Your task to perform on an android device: Go to ESPN.com Image 0: 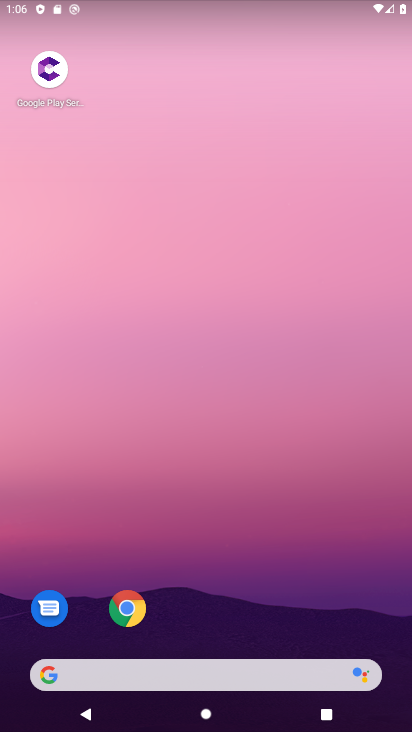
Step 0: drag from (200, 626) to (108, 96)
Your task to perform on an android device: Go to ESPN.com Image 1: 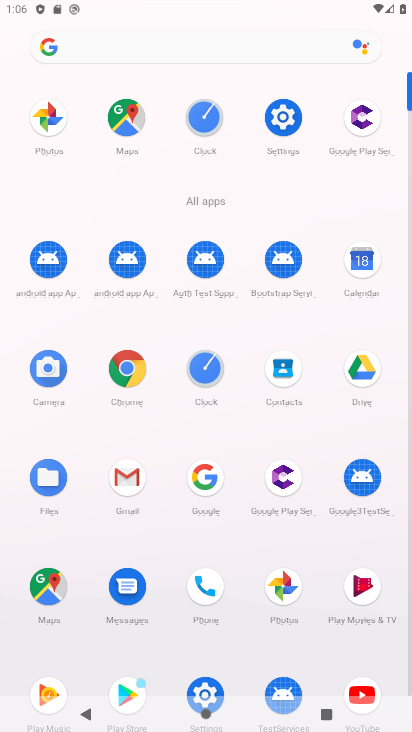
Step 1: click (115, 358)
Your task to perform on an android device: Go to ESPN.com Image 2: 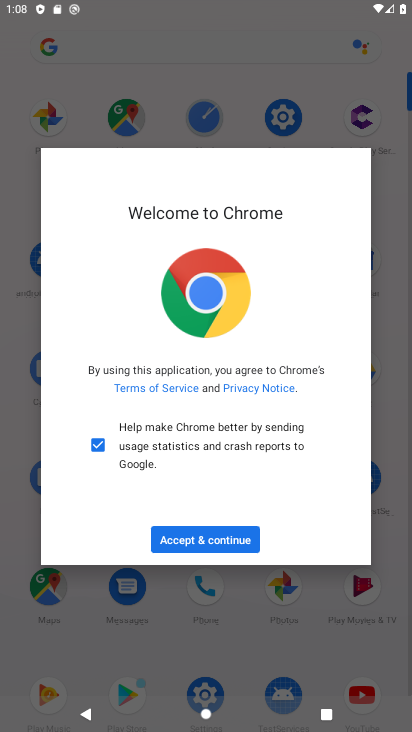
Step 2: click (178, 548)
Your task to perform on an android device: Go to ESPN.com Image 3: 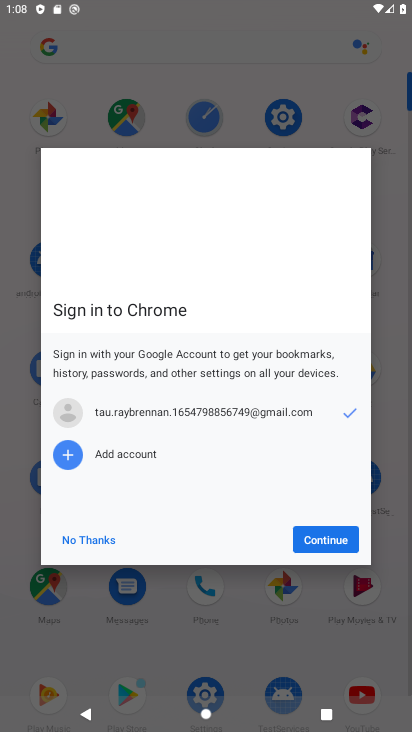
Step 3: click (87, 539)
Your task to perform on an android device: Go to ESPN.com Image 4: 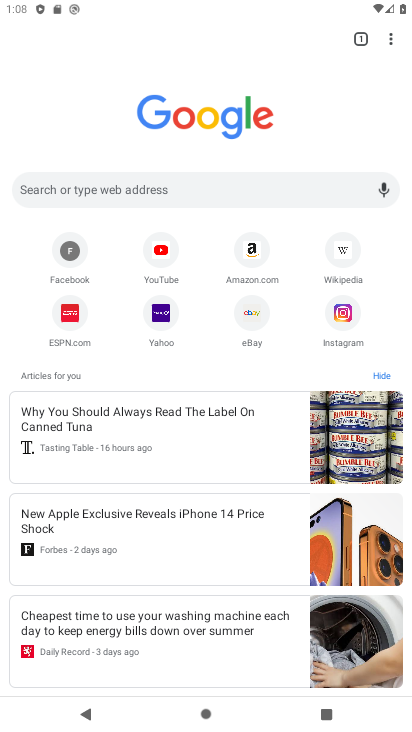
Step 4: click (60, 323)
Your task to perform on an android device: Go to ESPN.com Image 5: 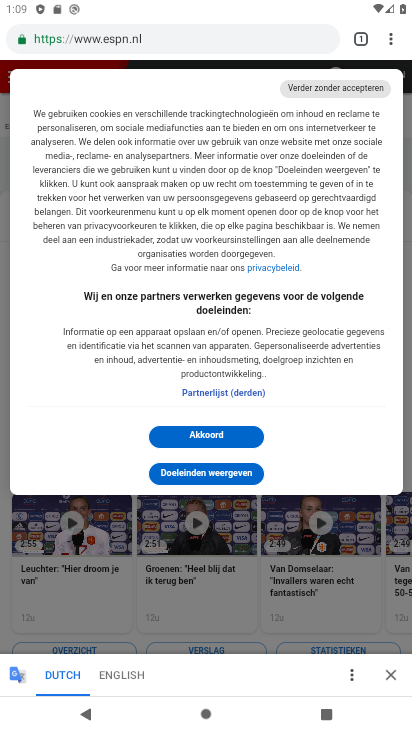
Step 5: task complete